Your task to perform on an android device: Open the Play Movies app and select the watchlist tab. Image 0: 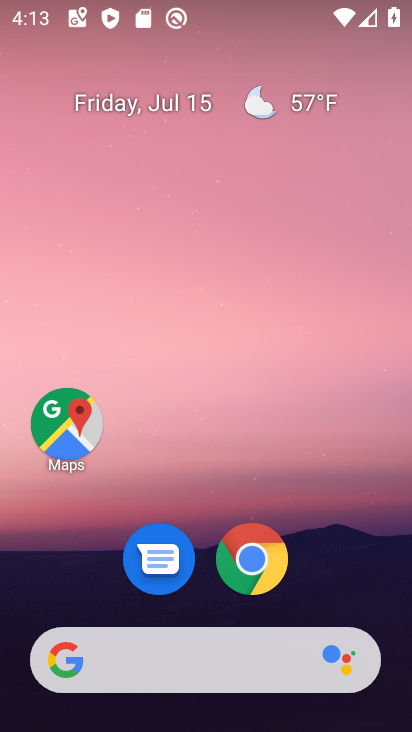
Step 0: drag from (114, 530) to (172, 70)
Your task to perform on an android device: Open the Play Movies app and select the watchlist tab. Image 1: 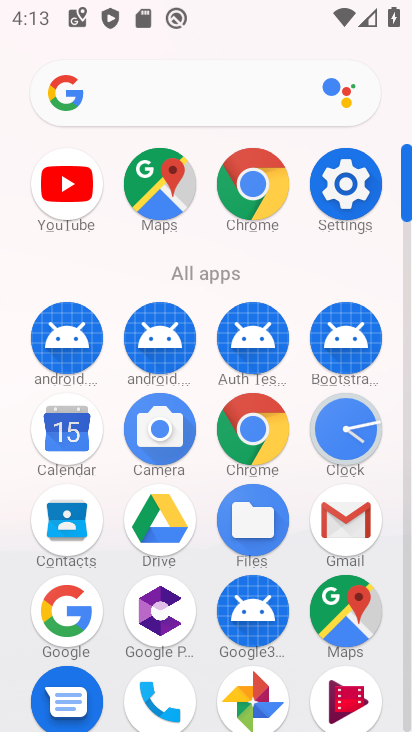
Step 1: drag from (206, 594) to (232, 322)
Your task to perform on an android device: Open the Play Movies app and select the watchlist tab. Image 2: 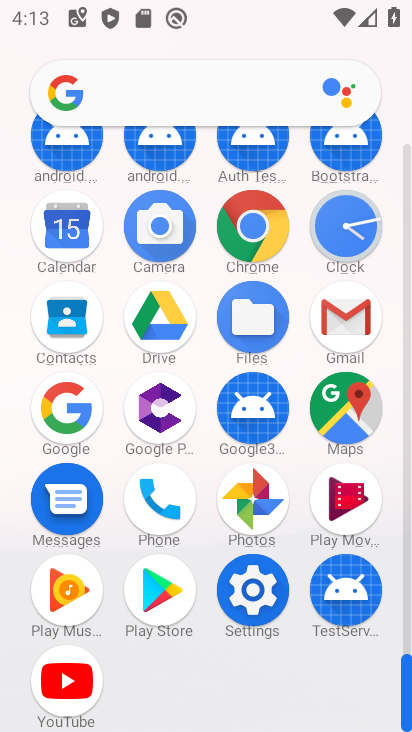
Step 2: click (357, 507)
Your task to perform on an android device: Open the Play Movies app and select the watchlist tab. Image 3: 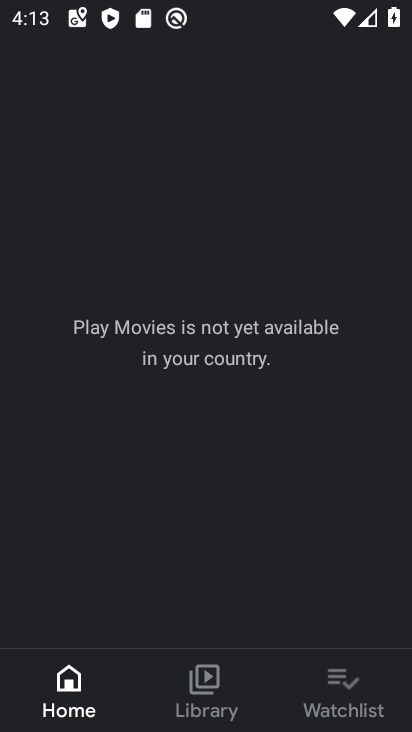
Step 3: click (334, 700)
Your task to perform on an android device: Open the Play Movies app and select the watchlist tab. Image 4: 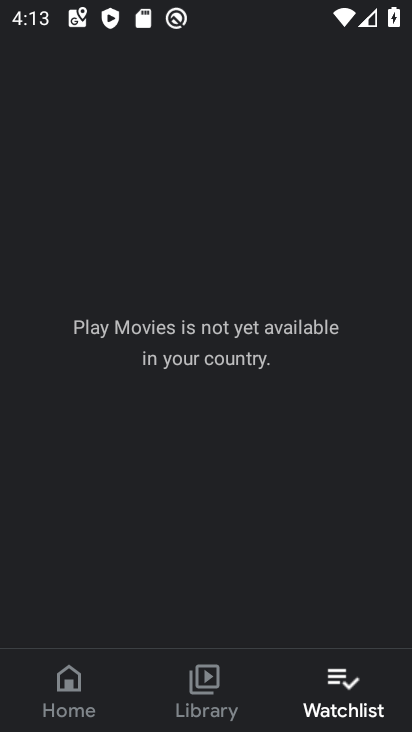
Step 4: task complete